Your task to perform on an android device: Show me popular videos on Youtube Image 0: 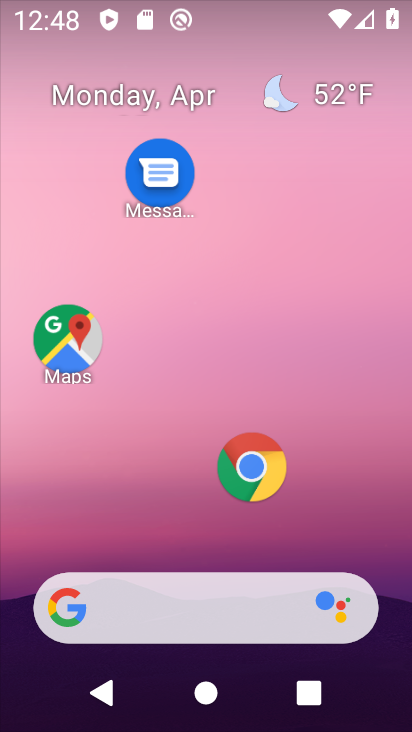
Step 0: drag from (191, 539) to (193, 190)
Your task to perform on an android device: Show me popular videos on Youtube Image 1: 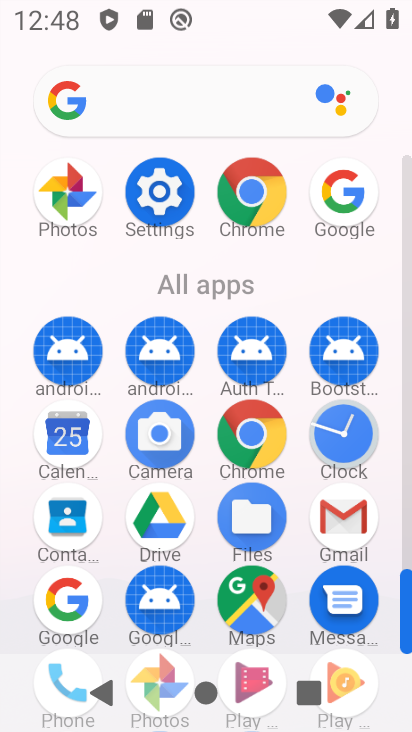
Step 1: drag from (195, 577) to (215, 209)
Your task to perform on an android device: Show me popular videos on Youtube Image 2: 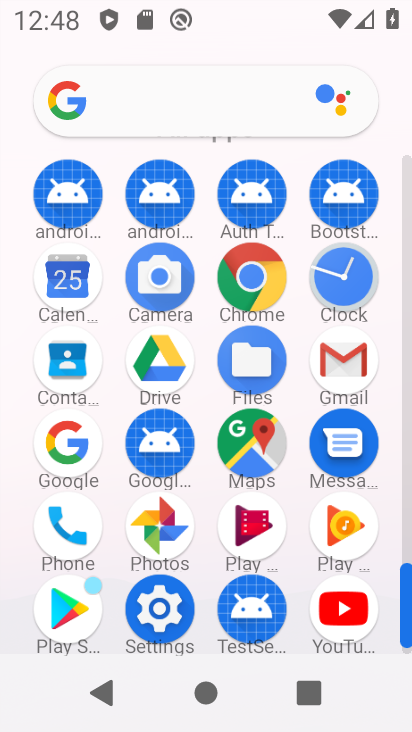
Step 2: click (338, 612)
Your task to perform on an android device: Show me popular videos on Youtube Image 3: 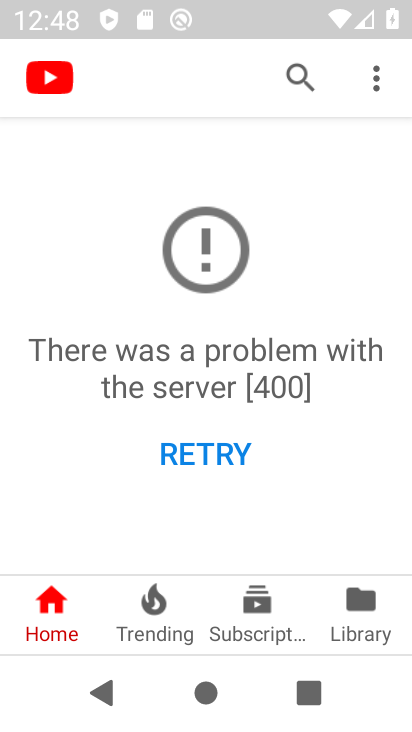
Step 3: click (294, 76)
Your task to perform on an android device: Show me popular videos on Youtube Image 4: 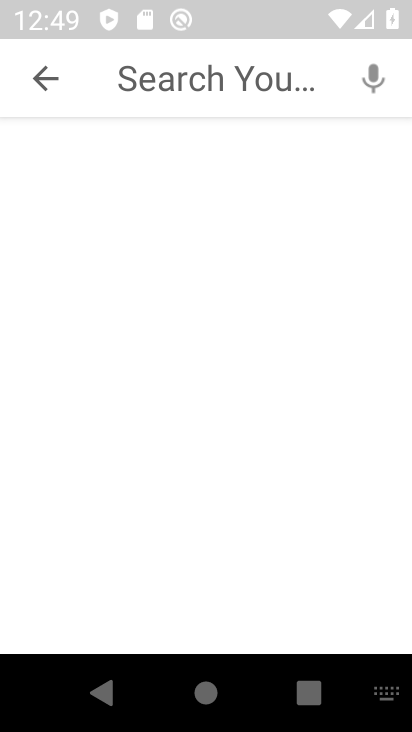
Step 4: type "popular videos"
Your task to perform on an android device: Show me popular videos on Youtube Image 5: 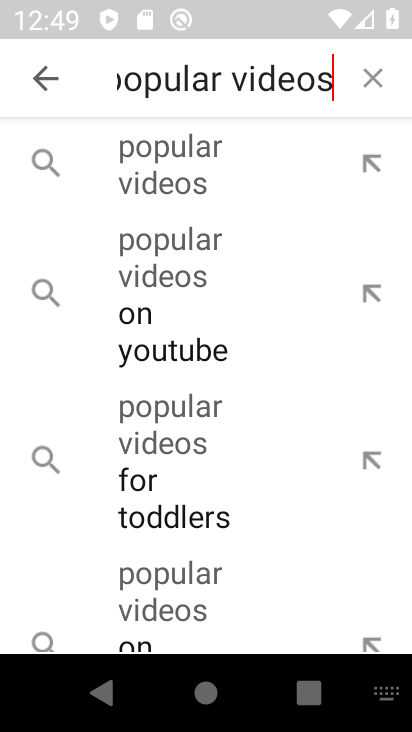
Step 5: click (205, 153)
Your task to perform on an android device: Show me popular videos on Youtube Image 6: 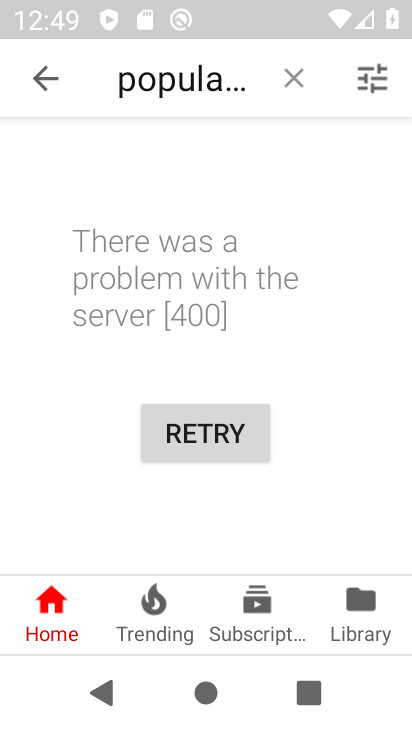
Step 6: task complete